Your task to perform on an android device: Open the stopwatch Image 0: 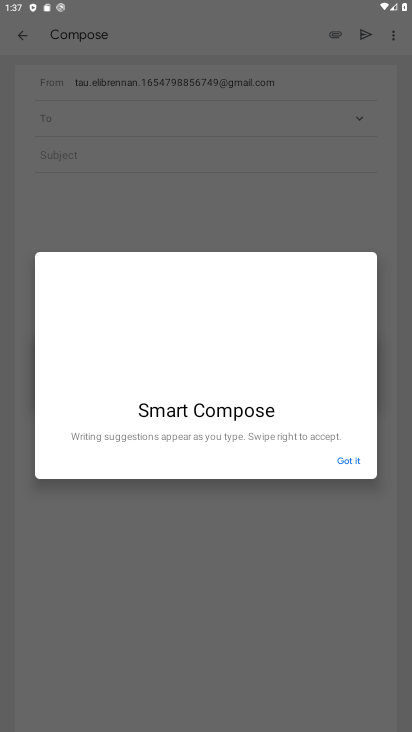
Step 0: press home button
Your task to perform on an android device: Open the stopwatch Image 1: 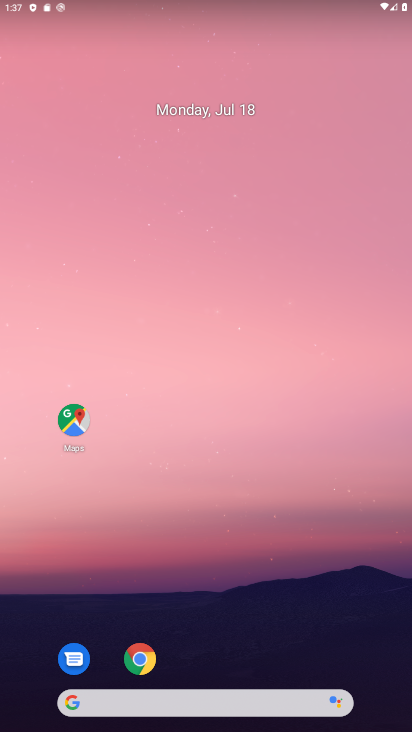
Step 1: drag from (279, 638) to (233, 77)
Your task to perform on an android device: Open the stopwatch Image 2: 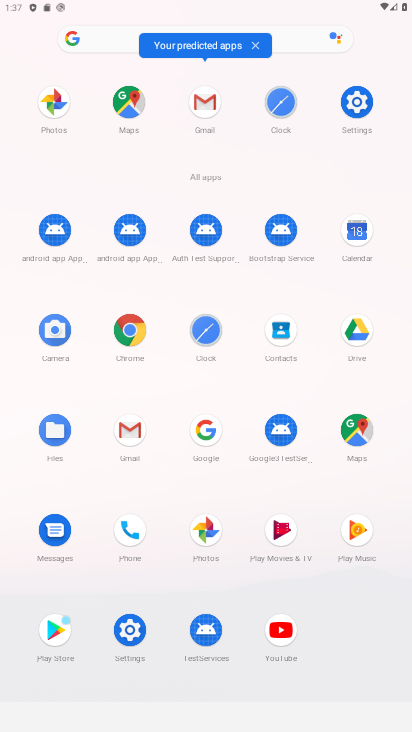
Step 2: click (282, 105)
Your task to perform on an android device: Open the stopwatch Image 3: 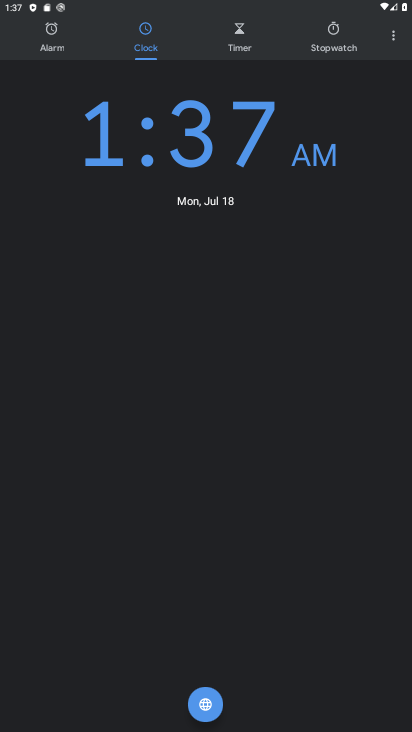
Step 3: click (327, 52)
Your task to perform on an android device: Open the stopwatch Image 4: 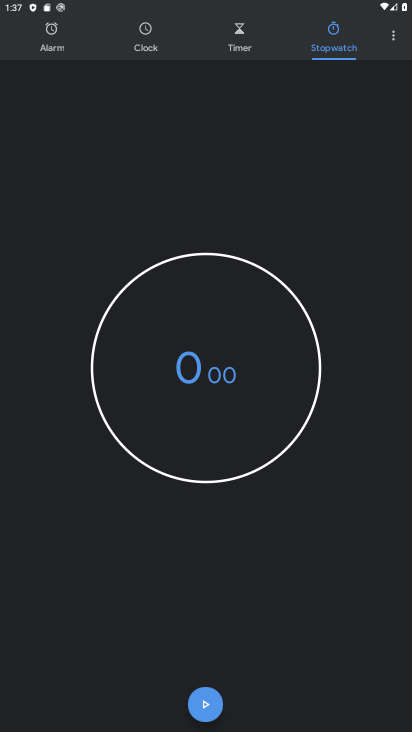
Step 4: task complete